Your task to perform on an android device: manage bookmarks in the chrome app Image 0: 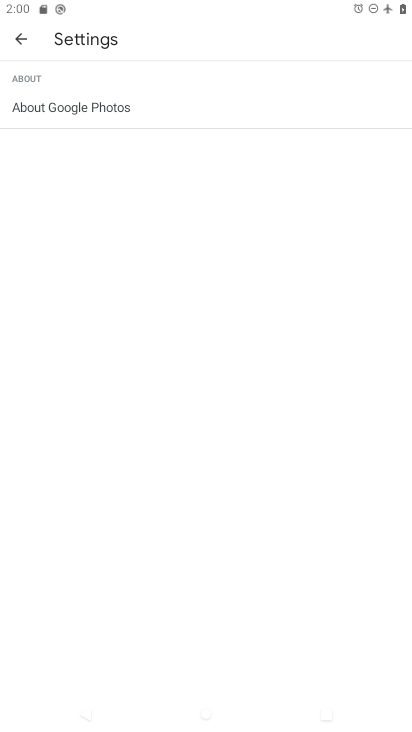
Step 0: press home button
Your task to perform on an android device: manage bookmarks in the chrome app Image 1: 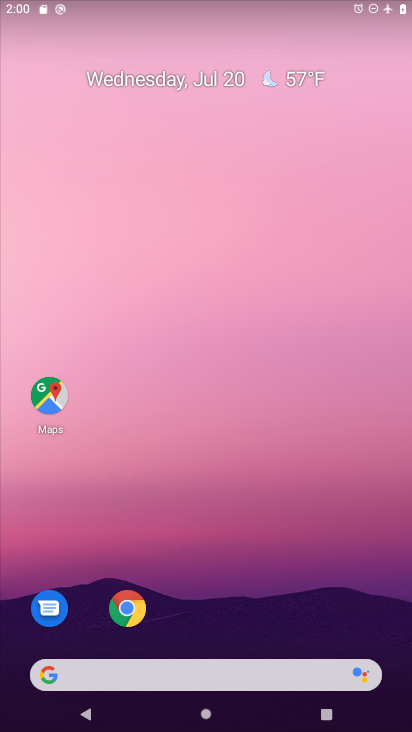
Step 1: click (130, 613)
Your task to perform on an android device: manage bookmarks in the chrome app Image 2: 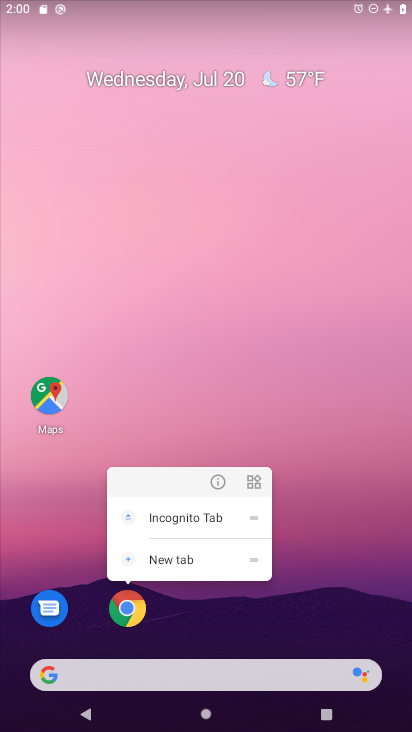
Step 2: click (130, 613)
Your task to perform on an android device: manage bookmarks in the chrome app Image 3: 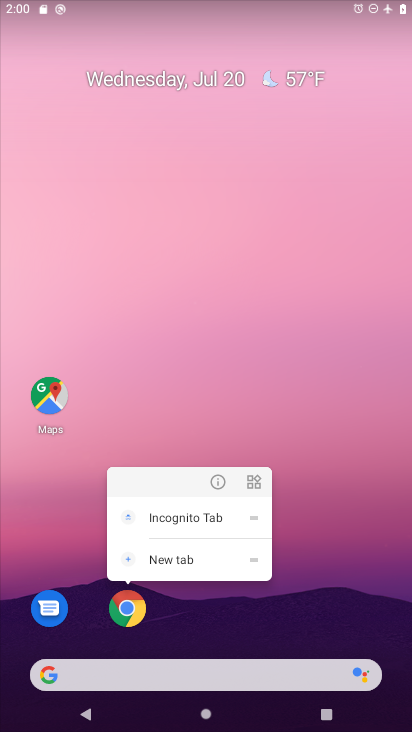
Step 3: click (130, 613)
Your task to perform on an android device: manage bookmarks in the chrome app Image 4: 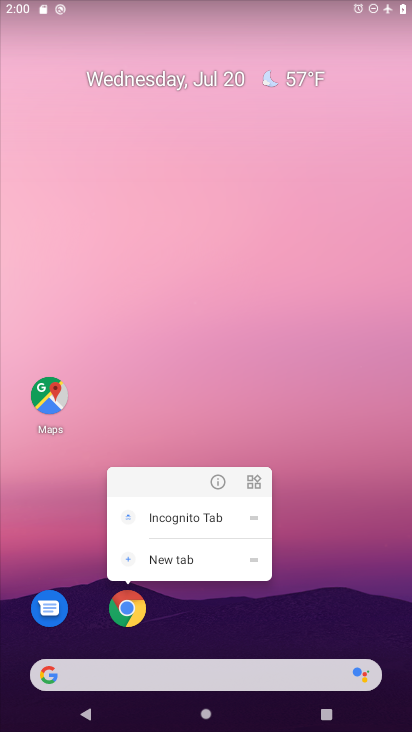
Step 4: click (130, 613)
Your task to perform on an android device: manage bookmarks in the chrome app Image 5: 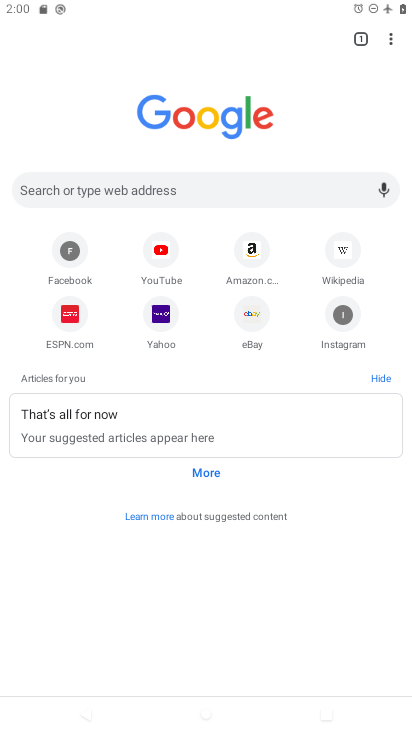
Step 5: click (130, 613)
Your task to perform on an android device: manage bookmarks in the chrome app Image 6: 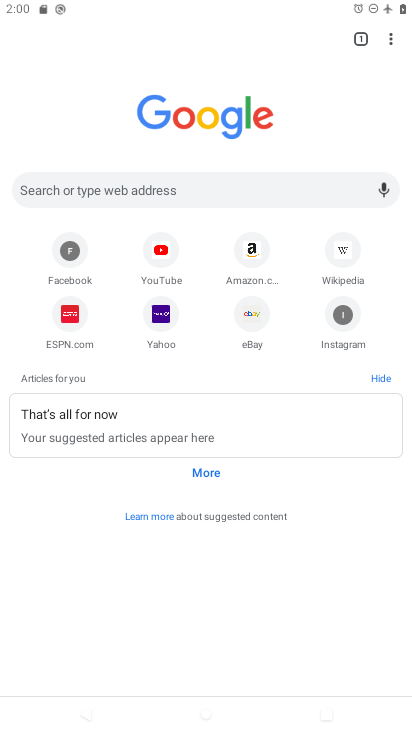
Step 6: click (130, 613)
Your task to perform on an android device: manage bookmarks in the chrome app Image 7: 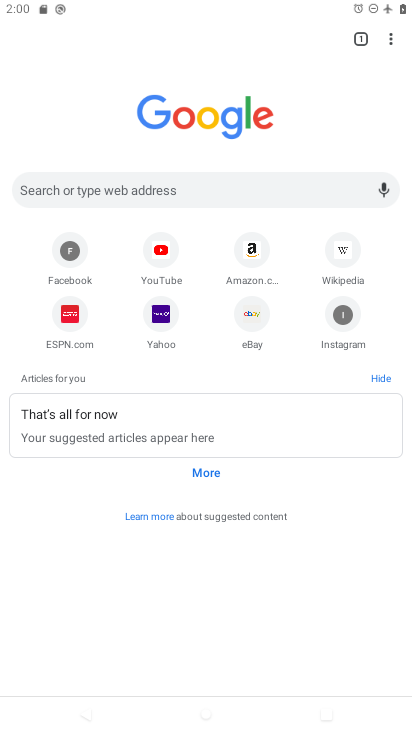
Step 7: click (391, 34)
Your task to perform on an android device: manage bookmarks in the chrome app Image 8: 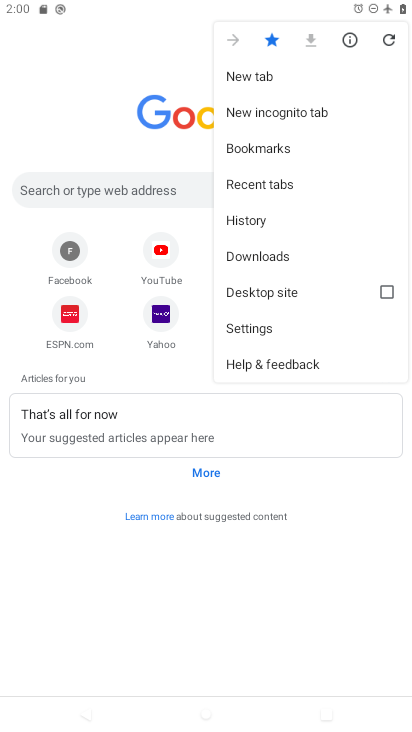
Step 8: click (289, 150)
Your task to perform on an android device: manage bookmarks in the chrome app Image 9: 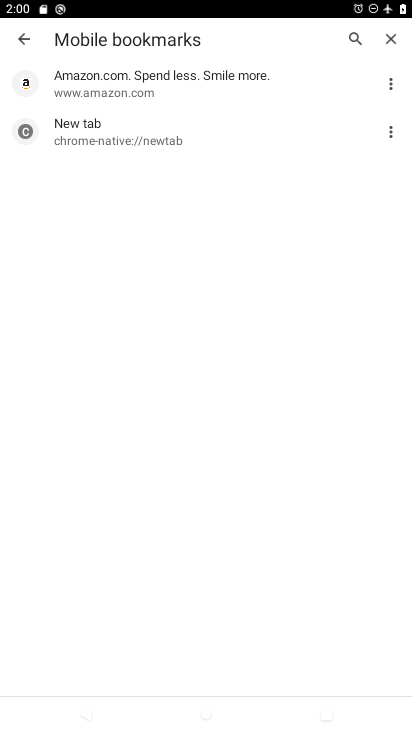
Step 9: click (392, 81)
Your task to perform on an android device: manage bookmarks in the chrome app Image 10: 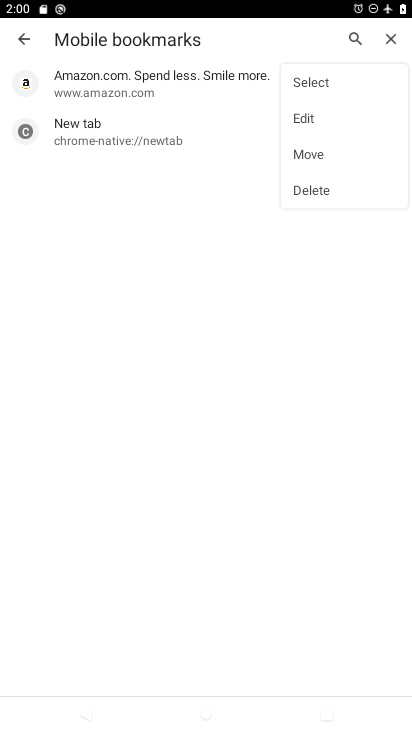
Step 10: click (334, 194)
Your task to perform on an android device: manage bookmarks in the chrome app Image 11: 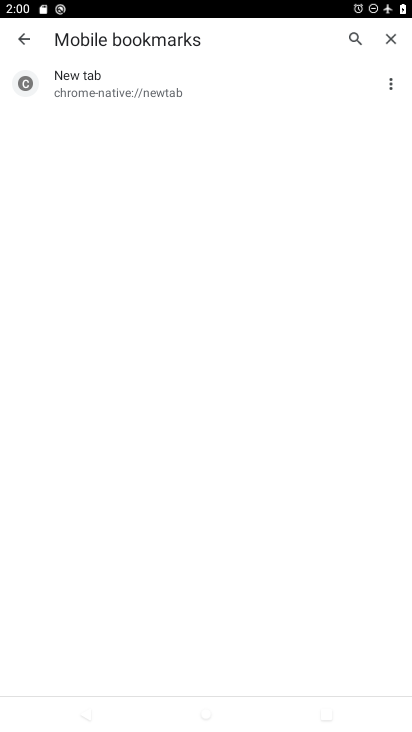
Step 11: task complete